Your task to perform on an android device: Go to Google maps Image 0: 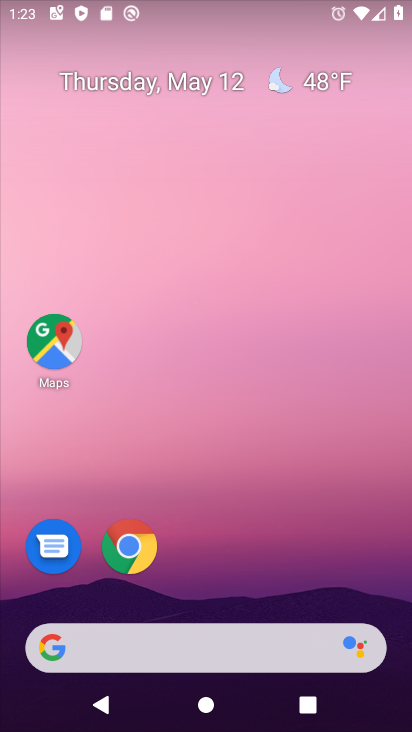
Step 0: click (53, 351)
Your task to perform on an android device: Go to Google maps Image 1: 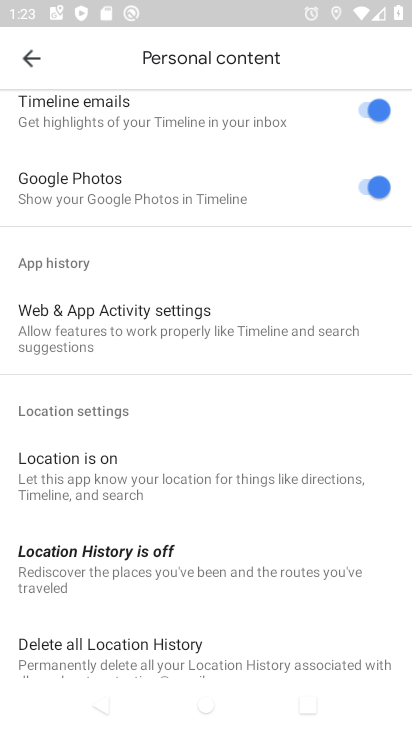
Step 1: click (31, 60)
Your task to perform on an android device: Go to Google maps Image 2: 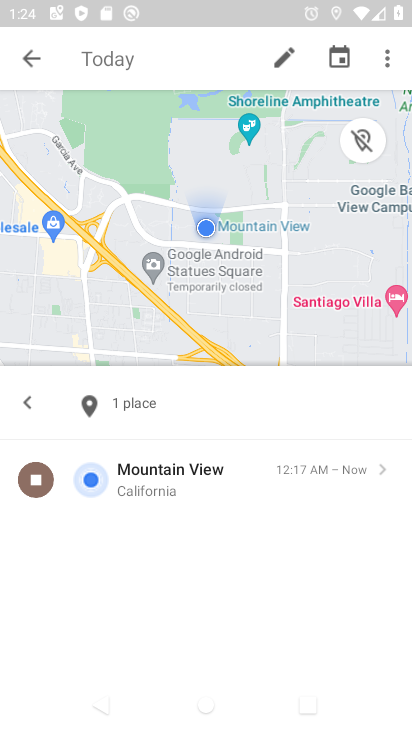
Step 2: task complete